Your task to perform on an android device: turn on bluetooth scan Image 0: 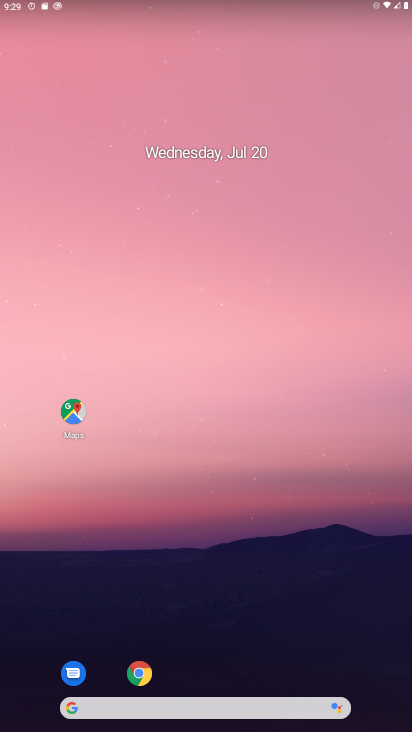
Step 0: drag from (349, 669) to (166, 99)
Your task to perform on an android device: turn on bluetooth scan Image 1: 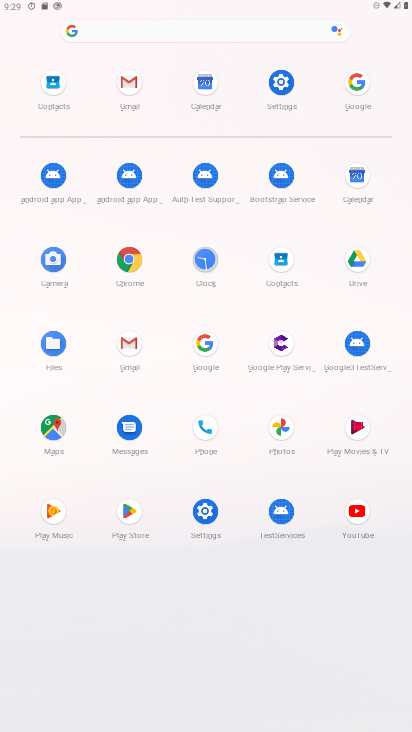
Step 1: click (277, 87)
Your task to perform on an android device: turn on bluetooth scan Image 2: 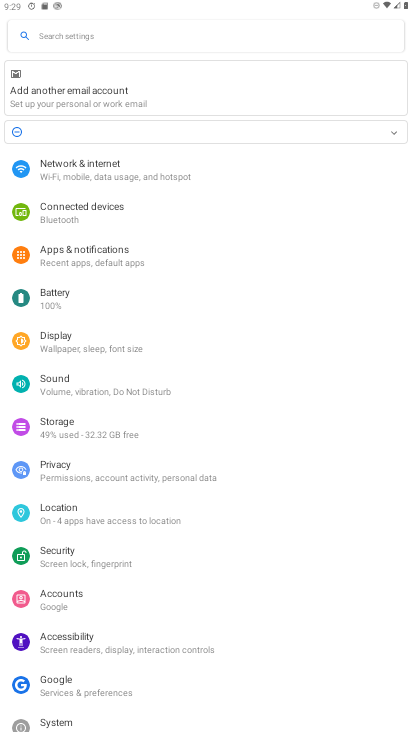
Step 2: click (67, 512)
Your task to perform on an android device: turn on bluetooth scan Image 3: 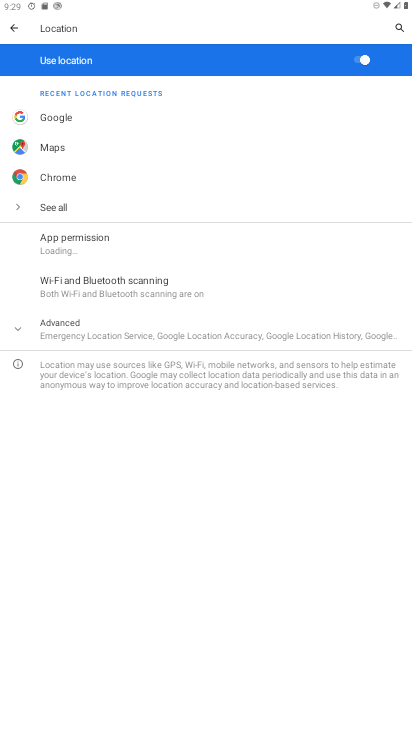
Step 3: click (119, 327)
Your task to perform on an android device: turn on bluetooth scan Image 4: 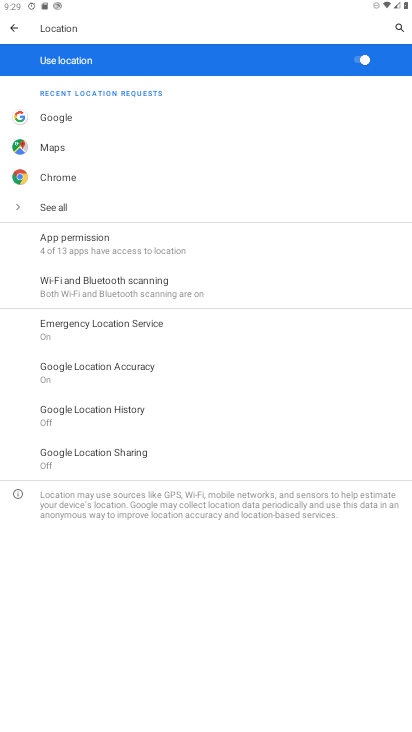
Step 4: click (118, 290)
Your task to perform on an android device: turn on bluetooth scan Image 5: 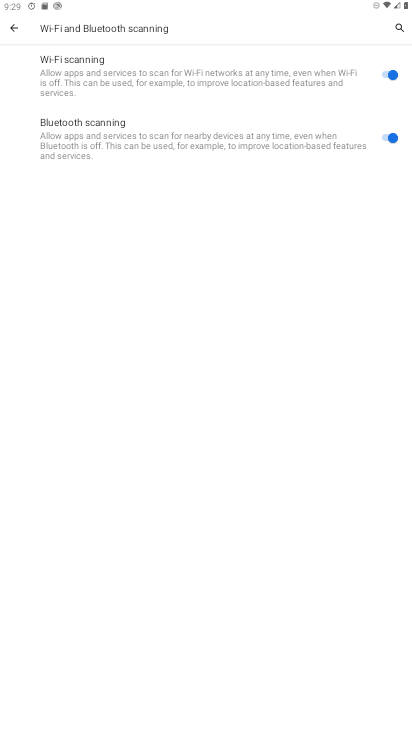
Step 5: task complete